Your task to perform on an android device: turn off picture-in-picture Image 0: 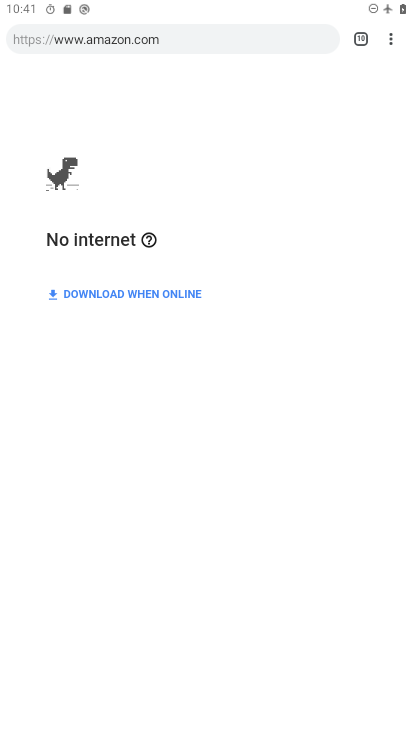
Step 0: press home button
Your task to perform on an android device: turn off picture-in-picture Image 1: 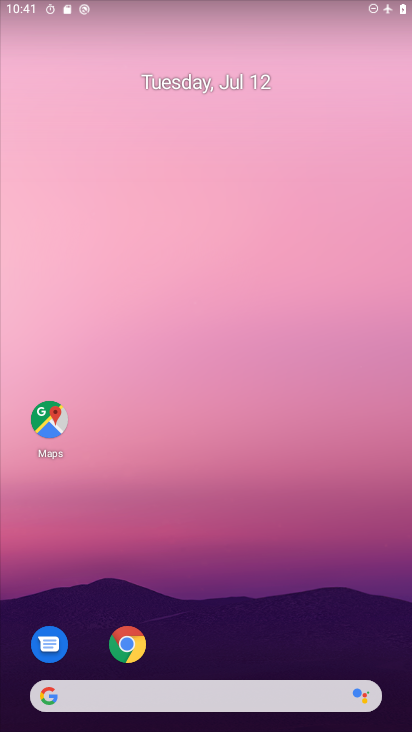
Step 1: click (124, 650)
Your task to perform on an android device: turn off picture-in-picture Image 2: 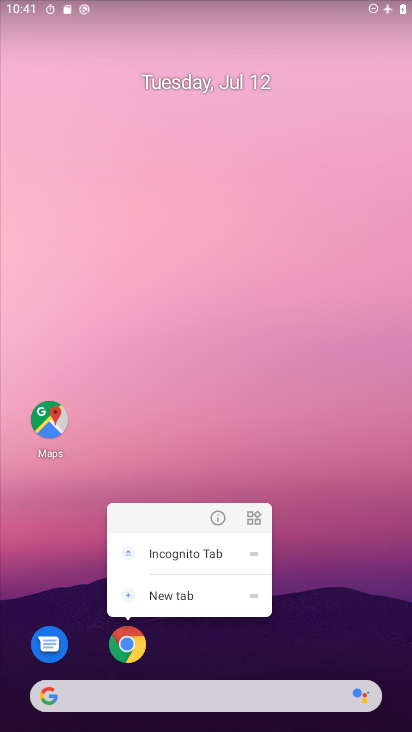
Step 2: click (214, 524)
Your task to perform on an android device: turn off picture-in-picture Image 3: 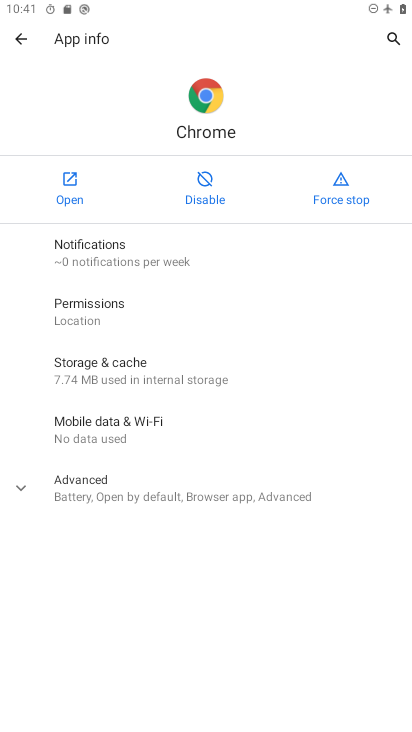
Step 3: click (123, 478)
Your task to perform on an android device: turn off picture-in-picture Image 4: 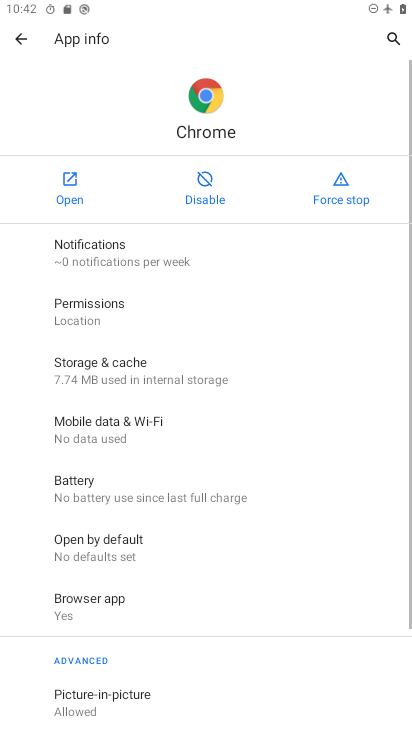
Step 4: drag from (248, 650) to (258, 293)
Your task to perform on an android device: turn off picture-in-picture Image 5: 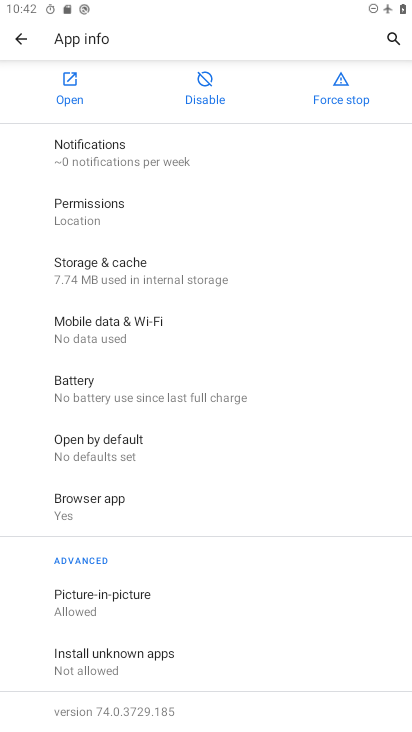
Step 5: click (185, 594)
Your task to perform on an android device: turn off picture-in-picture Image 6: 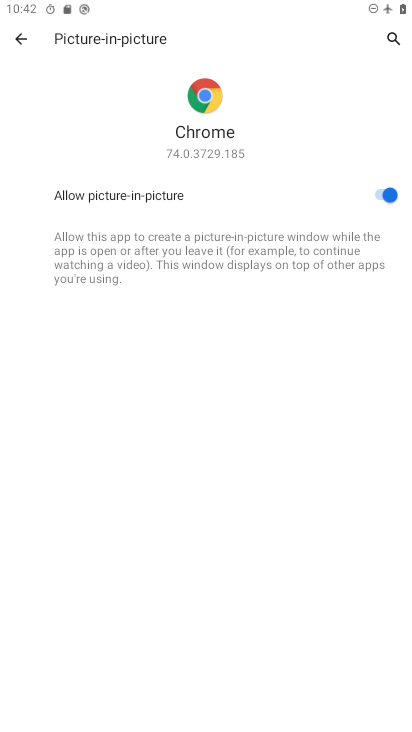
Step 6: click (368, 192)
Your task to perform on an android device: turn off picture-in-picture Image 7: 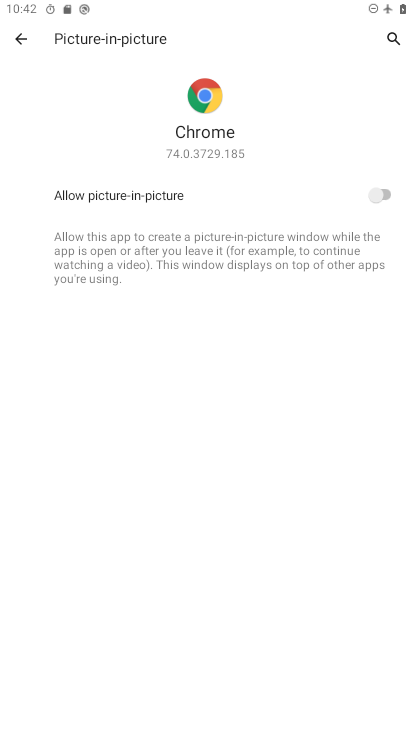
Step 7: task complete